Your task to perform on an android device: Search for vegetarian restaurants on Maps Image 0: 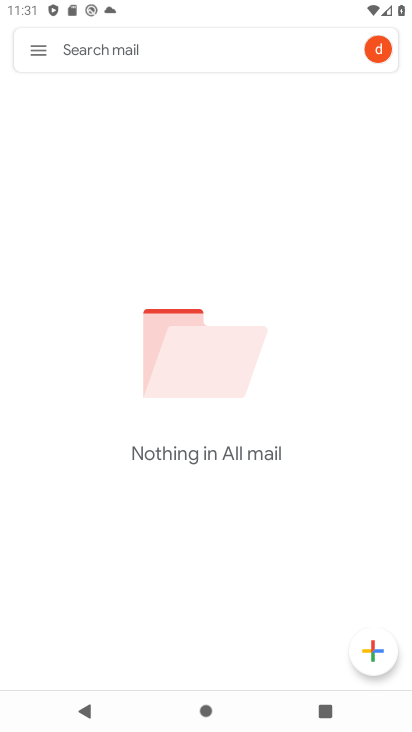
Step 0: press back button
Your task to perform on an android device: Search for vegetarian restaurants on Maps Image 1: 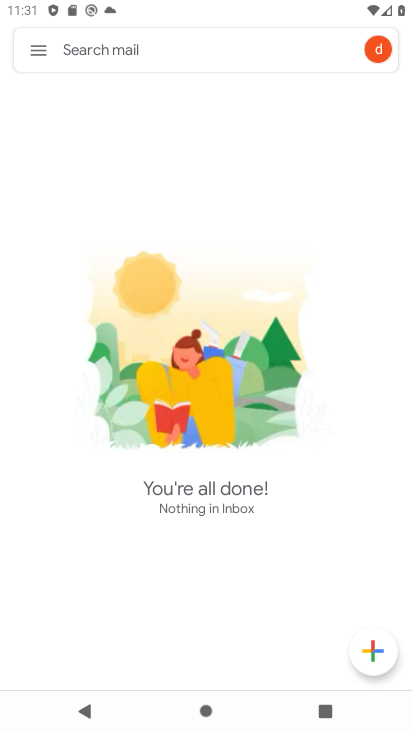
Step 1: press back button
Your task to perform on an android device: Search for vegetarian restaurants on Maps Image 2: 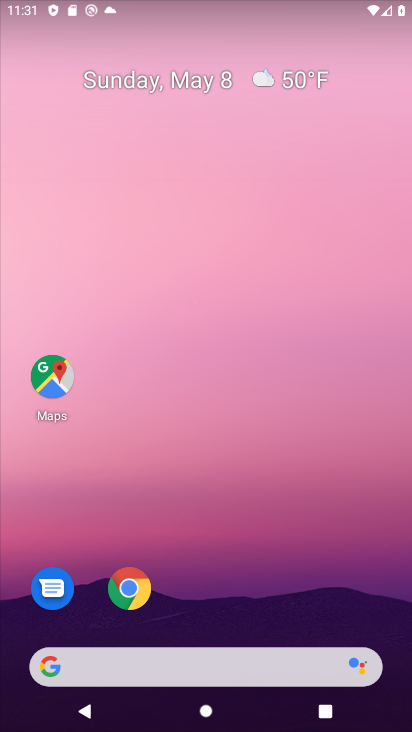
Step 2: click (49, 368)
Your task to perform on an android device: Search for vegetarian restaurants on Maps Image 3: 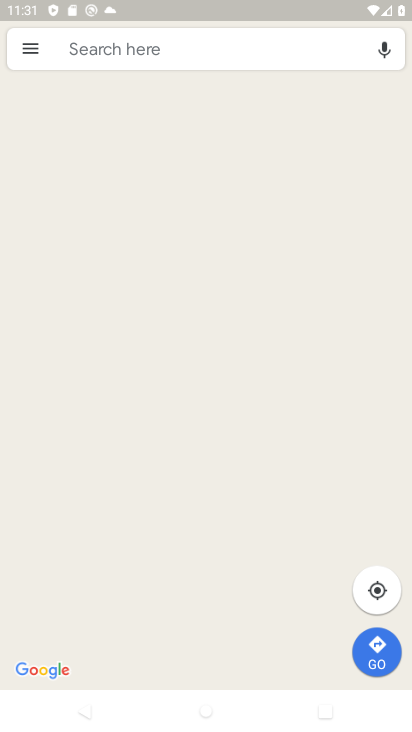
Step 3: click (132, 57)
Your task to perform on an android device: Search for vegetarian restaurants on Maps Image 4: 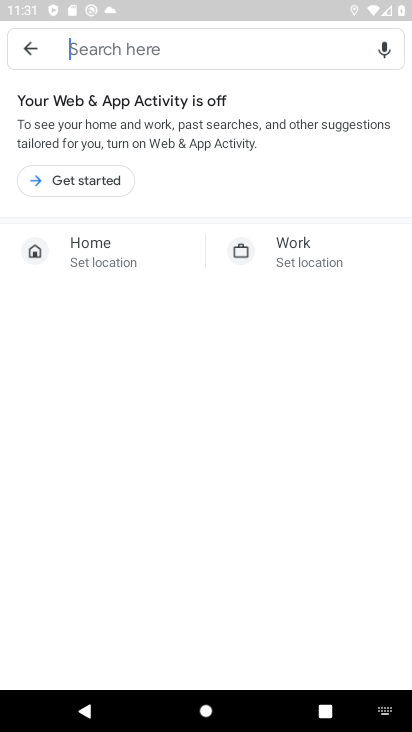
Step 4: type "vegetarian rest"
Your task to perform on an android device: Search for vegetarian restaurants on Maps Image 5: 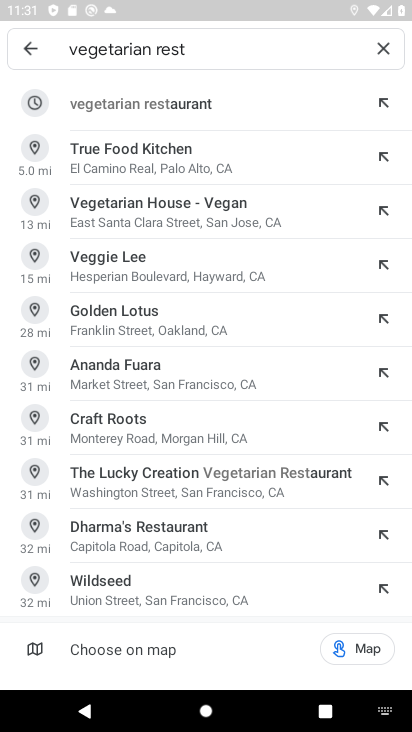
Step 5: click (159, 106)
Your task to perform on an android device: Search for vegetarian restaurants on Maps Image 6: 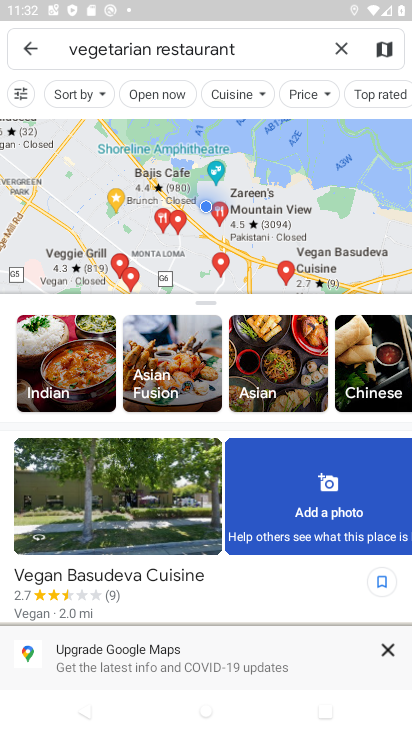
Step 6: task complete